Your task to perform on an android device: Is it going to rain tomorrow? Image 0: 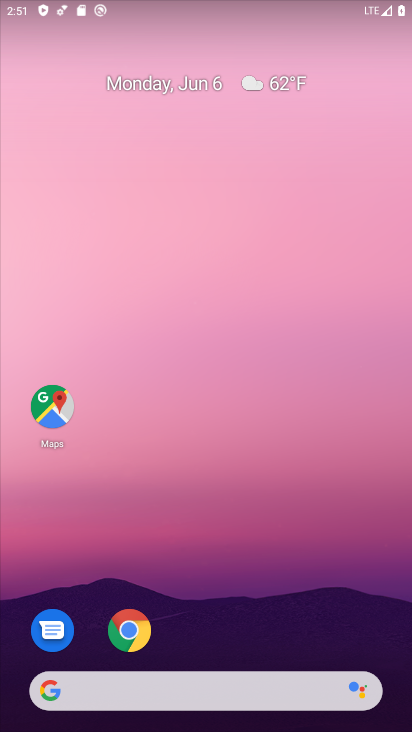
Step 0: press home button
Your task to perform on an android device: Is it going to rain tomorrow? Image 1: 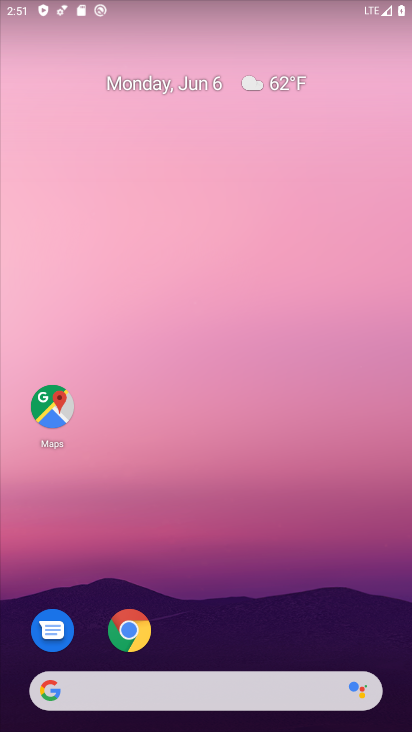
Step 1: click (238, 91)
Your task to perform on an android device: Is it going to rain tomorrow? Image 2: 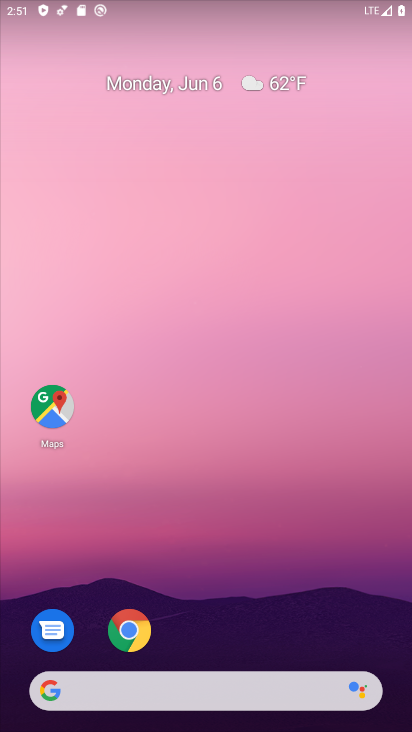
Step 2: drag from (224, 636) to (219, 357)
Your task to perform on an android device: Is it going to rain tomorrow? Image 3: 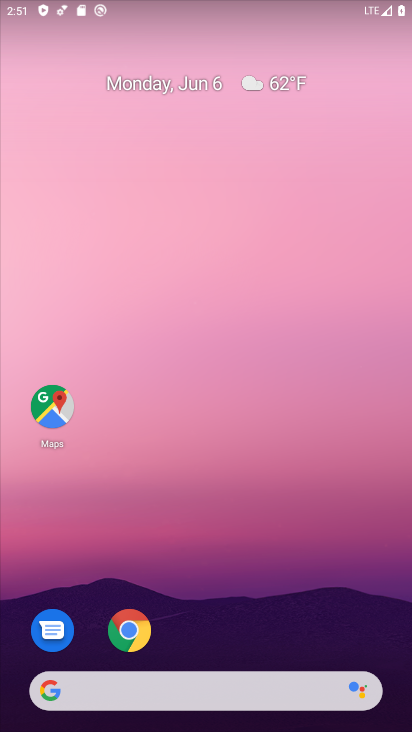
Step 3: click (143, 609)
Your task to perform on an android device: Is it going to rain tomorrow? Image 4: 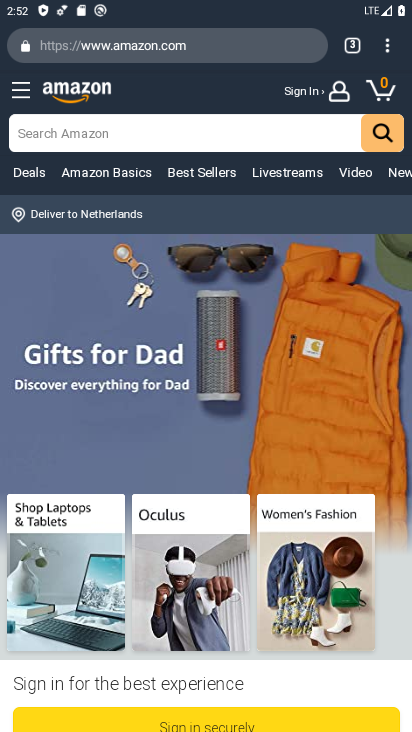
Step 4: click (196, 34)
Your task to perform on an android device: Is it going to rain tomorrow? Image 5: 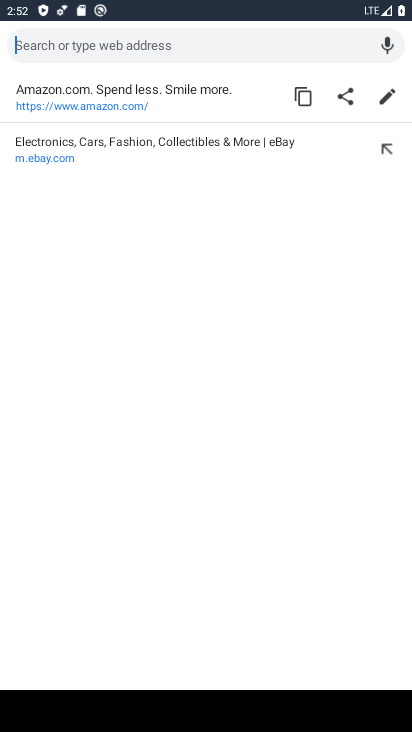
Step 5: click (202, 46)
Your task to perform on an android device: Is it going to rain tomorrow? Image 6: 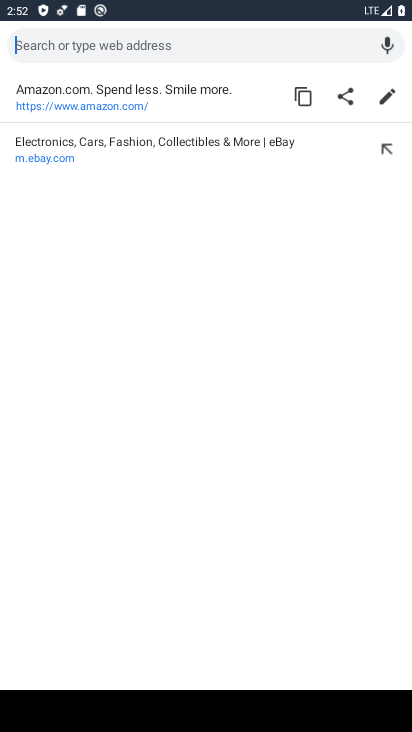
Step 6: type "Is it going to rain tomorrow?"
Your task to perform on an android device: Is it going to rain tomorrow? Image 7: 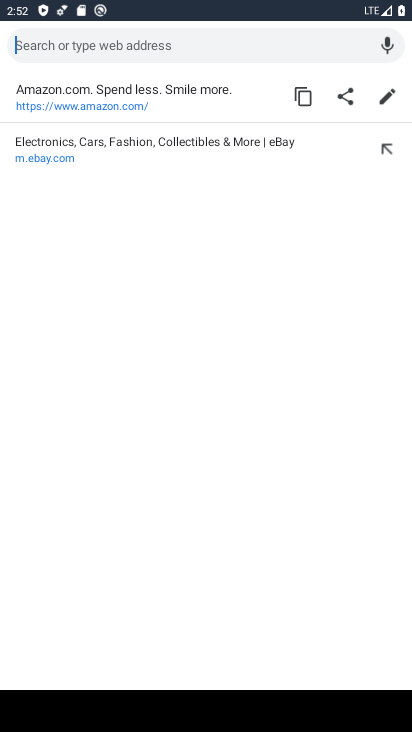
Step 7: click (160, 86)
Your task to perform on an android device: Is it going to rain tomorrow? Image 8: 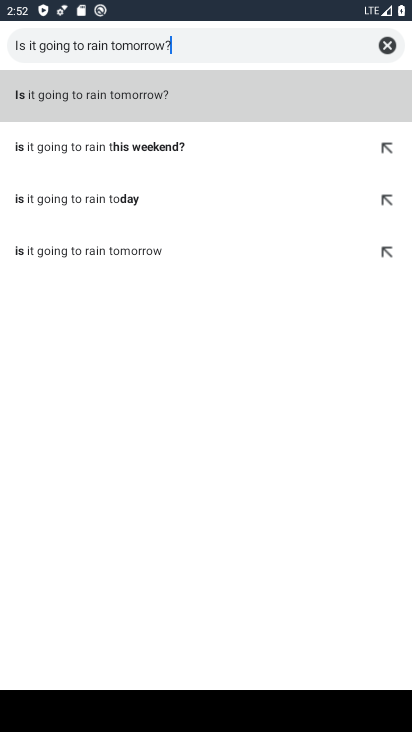
Step 8: type ""
Your task to perform on an android device: Is it going to rain tomorrow? Image 9: 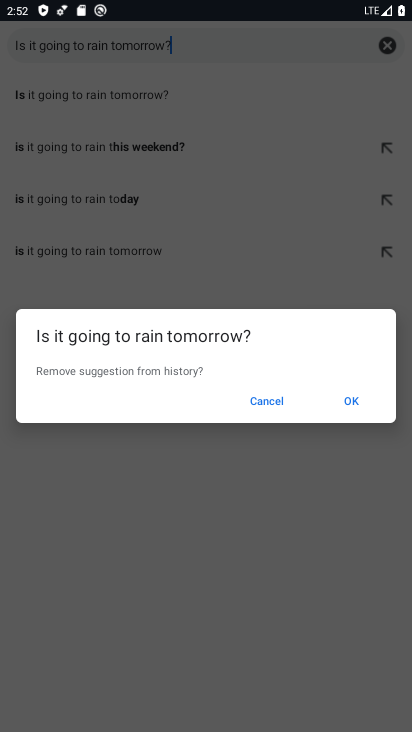
Step 9: click (270, 402)
Your task to perform on an android device: Is it going to rain tomorrow? Image 10: 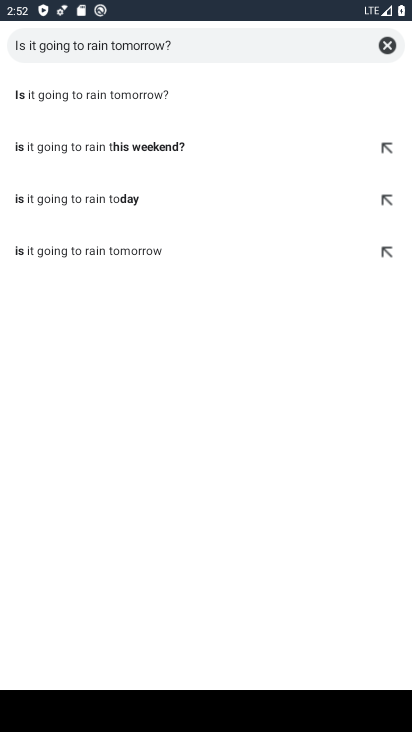
Step 10: click (128, 103)
Your task to perform on an android device: Is it going to rain tomorrow? Image 11: 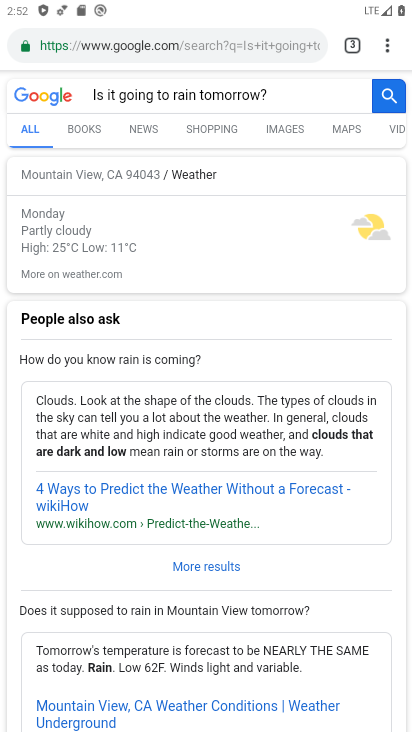
Step 11: task complete